Your task to perform on an android device: Open Reddit.com Image 0: 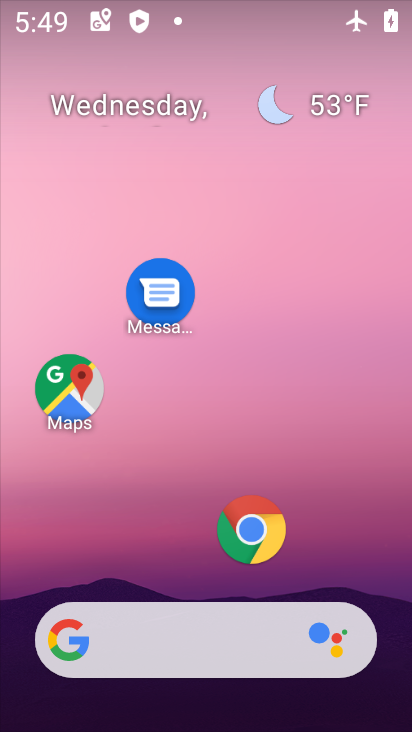
Step 0: click (255, 539)
Your task to perform on an android device: Open Reddit.com Image 1: 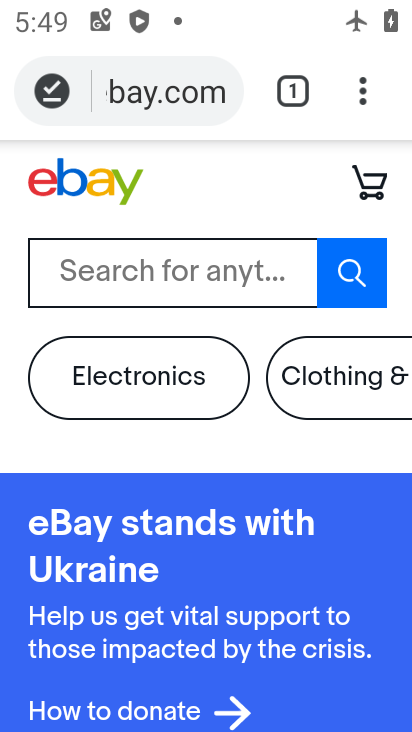
Step 1: click (148, 97)
Your task to perform on an android device: Open Reddit.com Image 2: 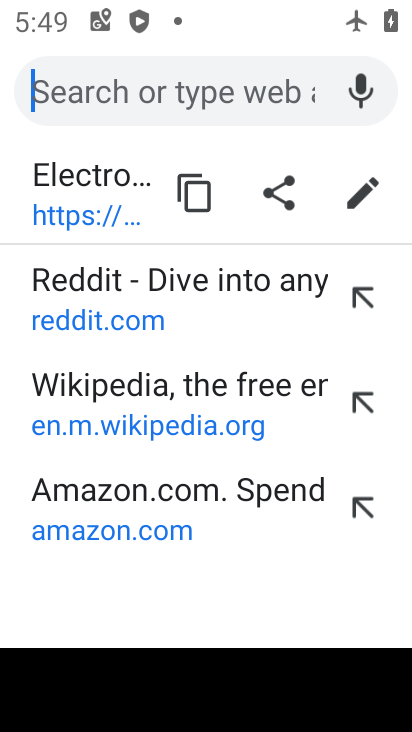
Step 2: click (141, 304)
Your task to perform on an android device: Open Reddit.com Image 3: 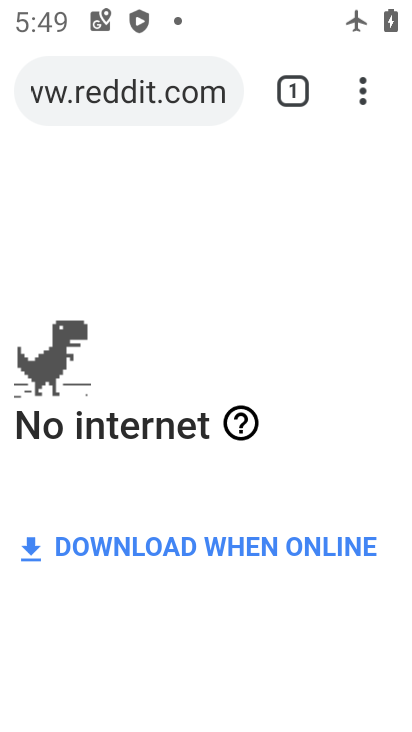
Step 3: task complete